Your task to perform on an android device: clear all cookies in the chrome app Image 0: 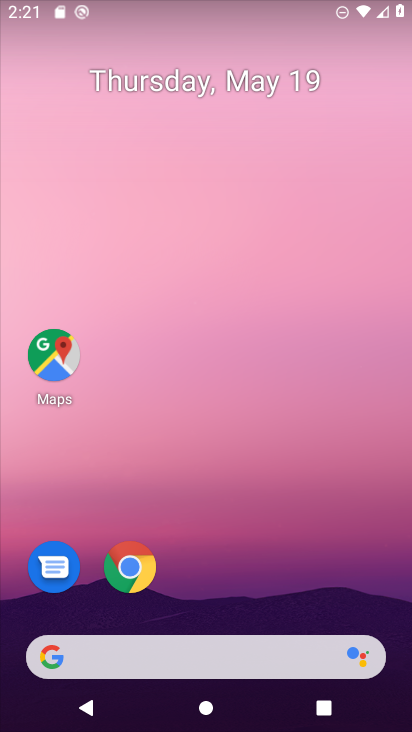
Step 0: click (135, 571)
Your task to perform on an android device: clear all cookies in the chrome app Image 1: 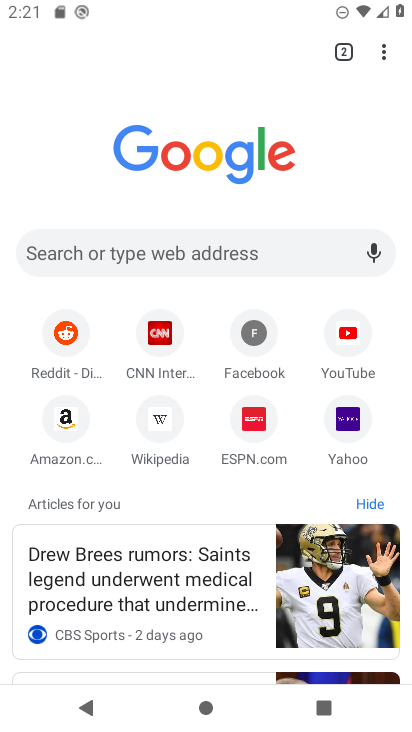
Step 1: click (380, 48)
Your task to perform on an android device: clear all cookies in the chrome app Image 2: 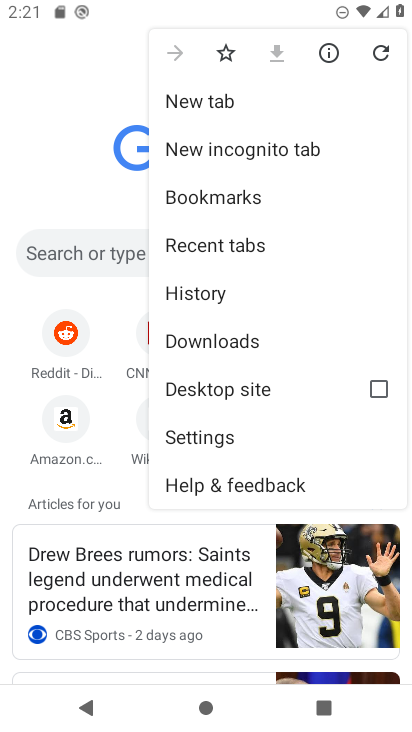
Step 2: click (228, 434)
Your task to perform on an android device: clear all cookies in the chrome app Image 3: 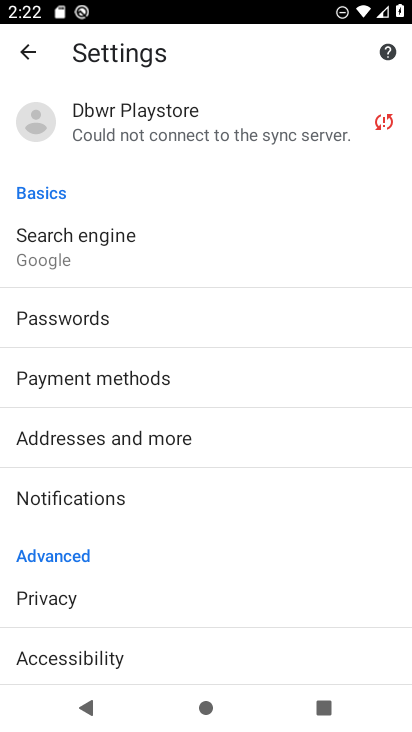
Step 3: click (130, 595)
Your task to perform on an android device: clear all cookies in the chrome app Image 4: 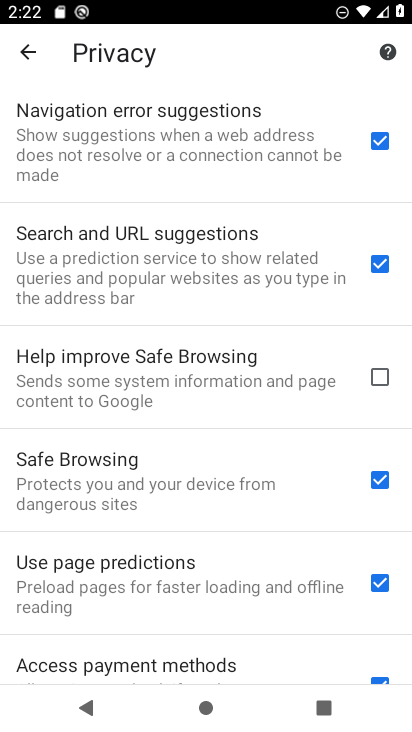
Step 4: drag from (130, 593) to (176, 134)
Your task to perform on an android device: clear all cookies in the chrome app Image 5: 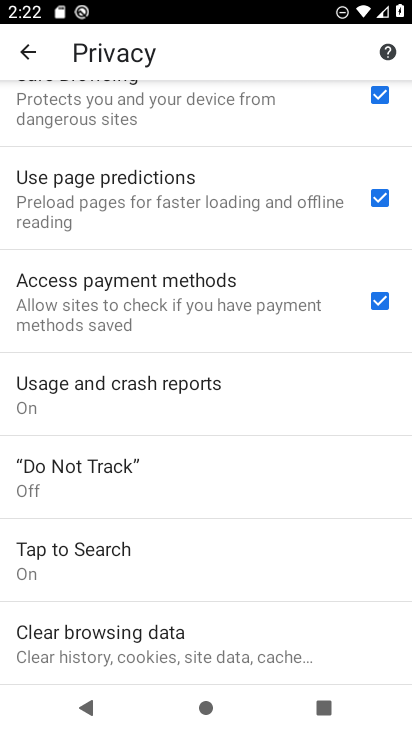
Step 5: click (181, 636)
Your task to perform on an android device: clear all cookies in the chrome app Image 6: 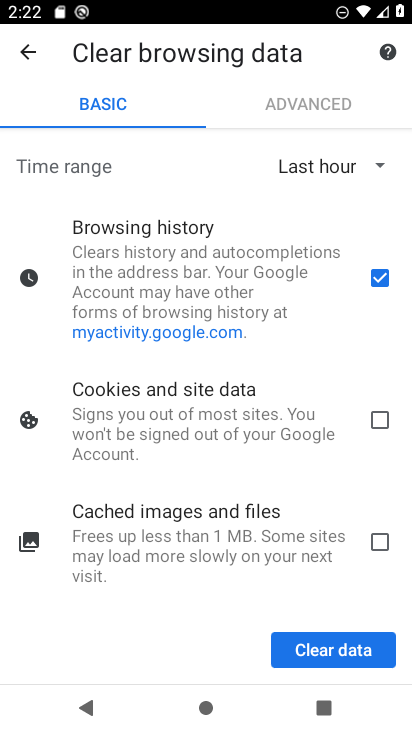
Step 6: click (380, 415)
Your task to perform on an android device: clear all cookies in the chrome app Image 7: 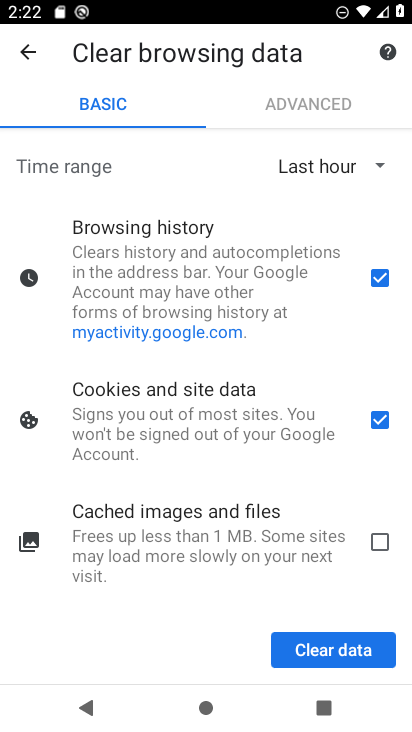
Step 7: click (381, 276)
Your task to perform on an android device: clear all cookies in the chrome app Image 8: 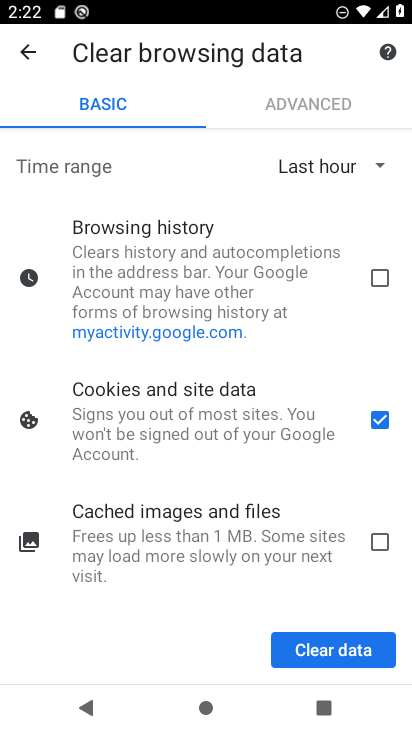
Step 8: click (365, 655)
Your task to perform on an android device: clear all cookies in the chrome app Image 9: 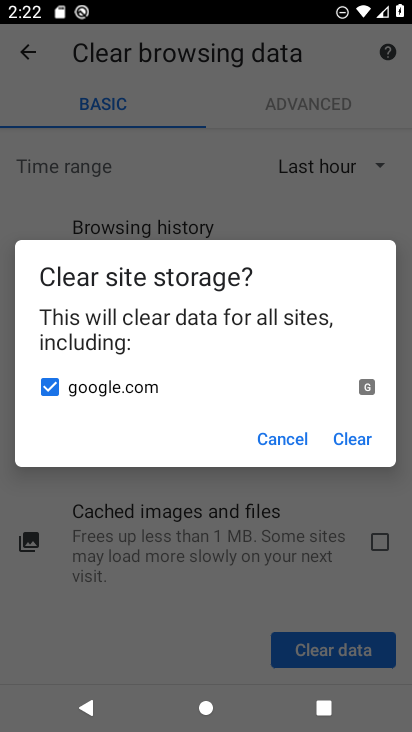
Step 9: click (359, 437)
Your task to perform on an android device: clear all cookies in the chrome app Image 10: 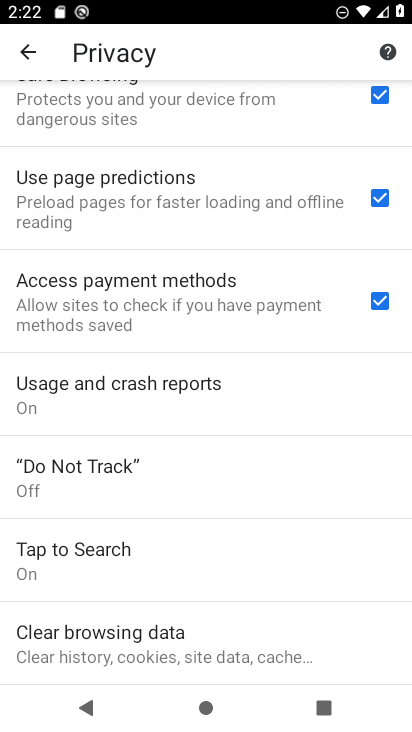
Step 10: task complete